Your task to perform on an android device: turn on the 24-hour format for clock Image 0: 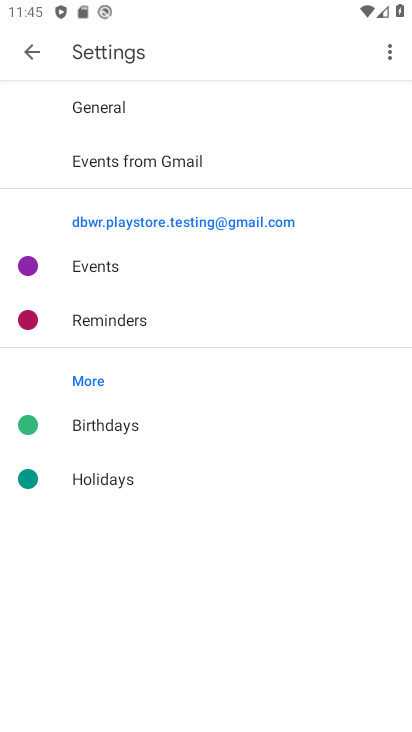
Step 0: press home button
Your task to perform on an android device: turn on the 24-hour format for clock Image 1: 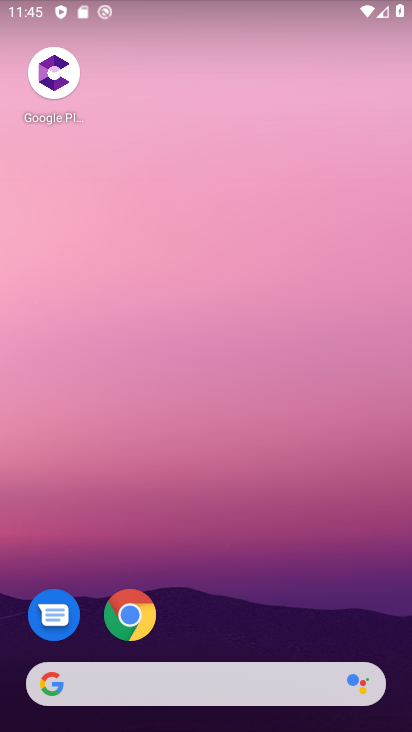
Step 1: drag from (341, 605) to (364, 157)
Your task to perform on an android device: turn on the 24-hour format for clock Image 2: 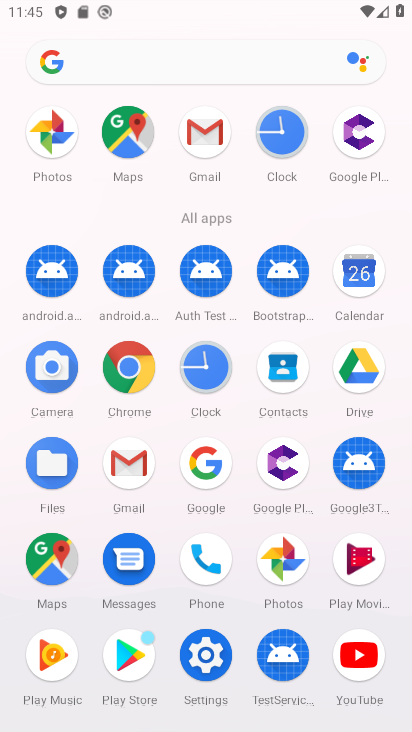
Step 2: click (205, 373)
Your task to perform on an android device: turn on the 24-hour format for clock Image 3: 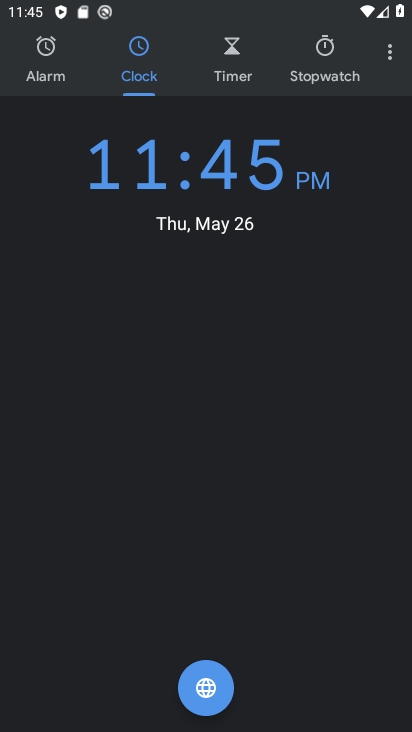
Step 3: click (388, 53)
Your task to perform on an android device: turn on the 24-hour format for clock Image 4: 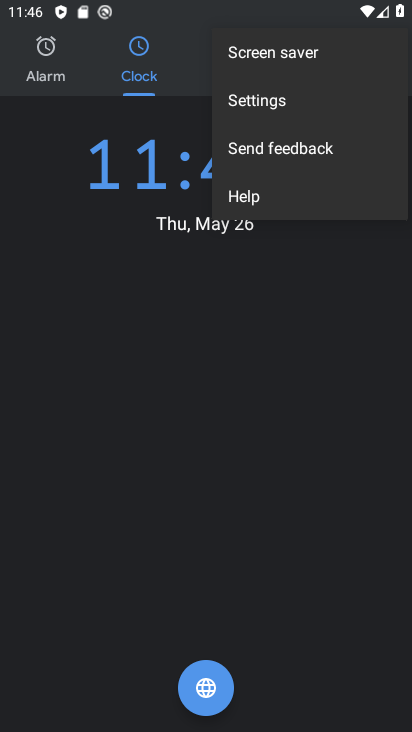
Step 4: click (304, 102)
Your task to perform on an android device: turn on the 24-hour format for clock Image 5: 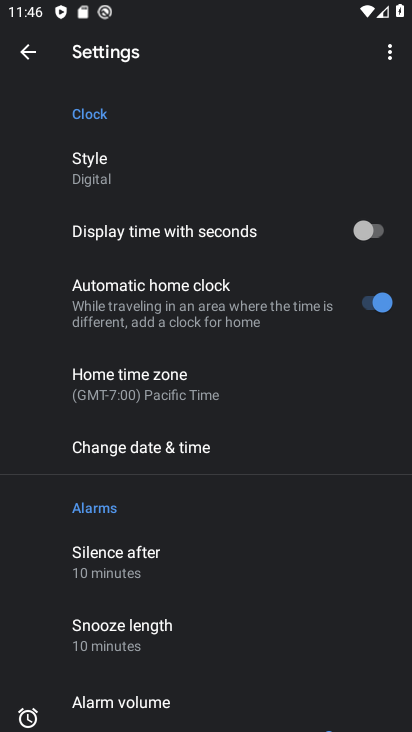
Step 5: drag from (306, 548) to (329, 391)
Your task to perform on an android device: turn on the 24-hour format for clock Image 6: 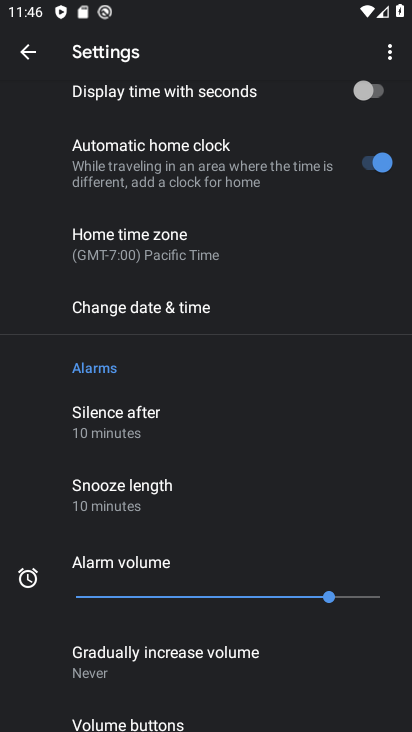
Step 6: drag from (319, 551) to (334, 332)
Your task to perform on an android device: turn on the 24-hour format for clock Image 7: 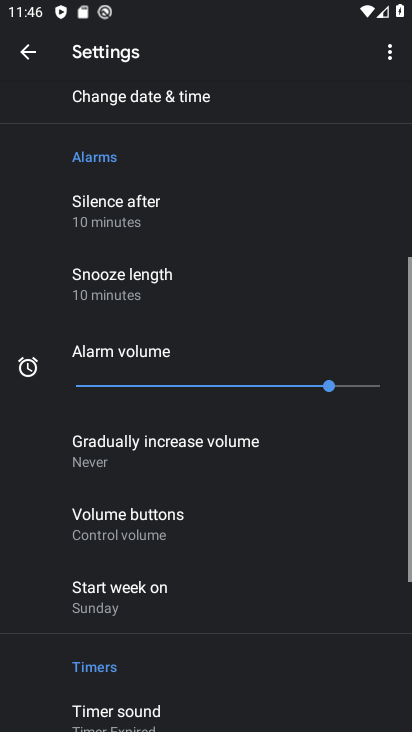
Step 7: drag from (299, 584) to (323, 306)
Your task to perform on an android device: turn on the 24-hour format for clock Image 8: 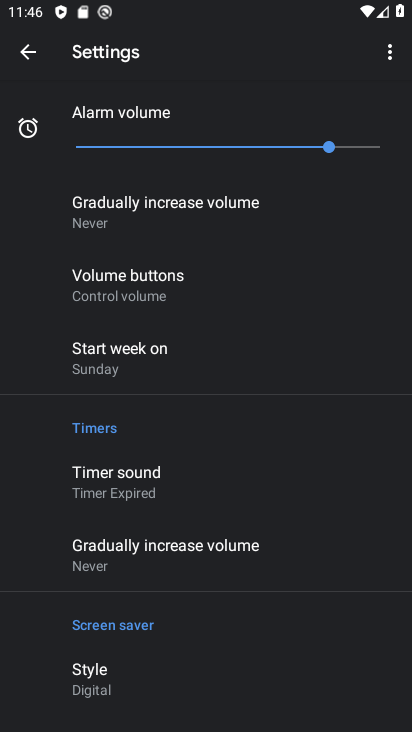
Step 8: drag from (315, 593) to (348, 332)
Your task to perform on an android device: turn on the 24-hour format for clock Image 9: 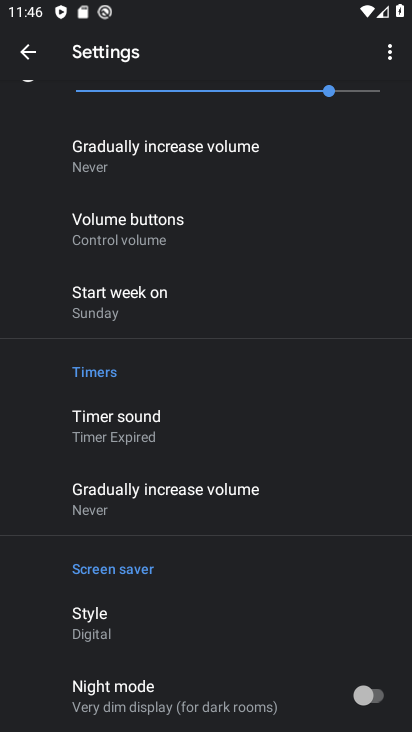
Step 9: drag from (348, 258) to (343, 459)
Your task to perform on an android device: turn on the 24-hour format for clock Image 10: 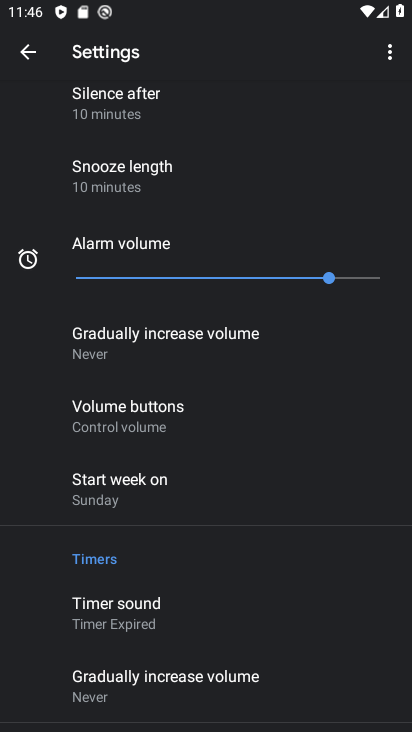
Step 10: drag from (367, 196) to (361, 390)
Your task to perform on an android device: turn on the 24-hour format for clock Image 11: 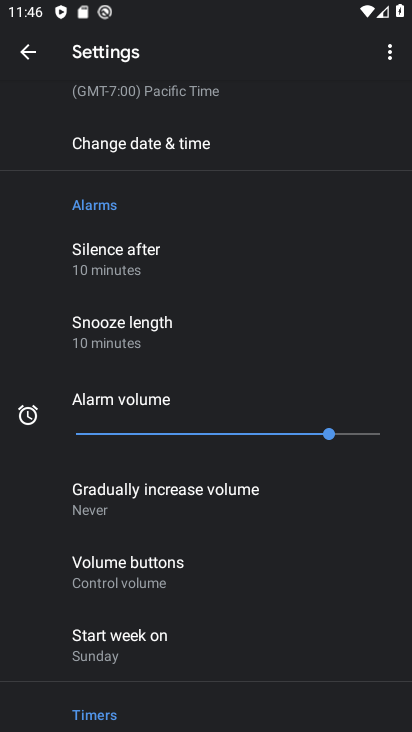
Step 11: drag from (339, 143) to (342, 406)
Your task to perform on an android device: turn on the 24-hour format for clock Image 12: 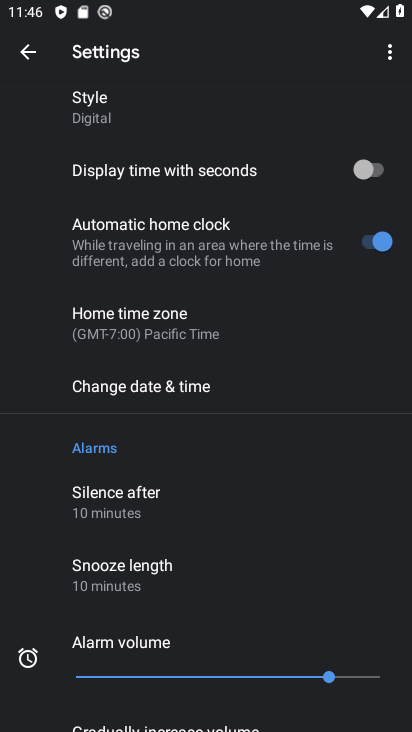
Step 12: click (218, 398)
Your task to perform on an android device: turn on the 24-hour format for clock Image 13: 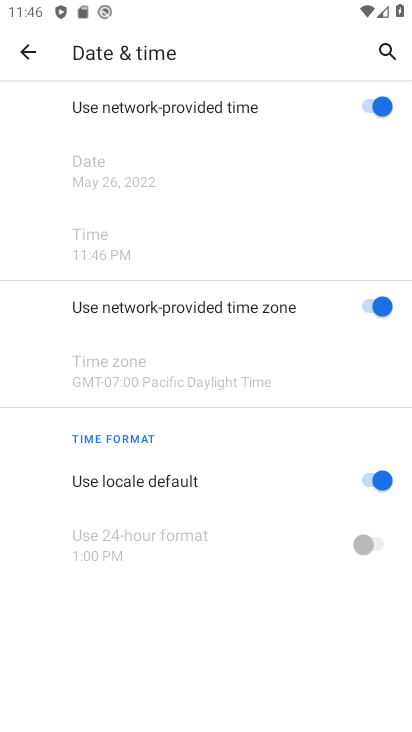
Step 13: click (375, 473)
Your task to perform on an android device: turn on the 24-hour format for clock Image 14: 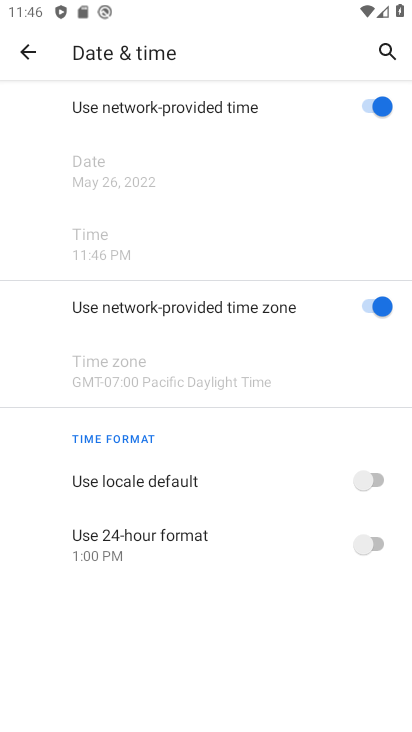
Step 14: click (366, 553)
Your task to perform on an android device: turn on the 24-hour format for clock Image 15: 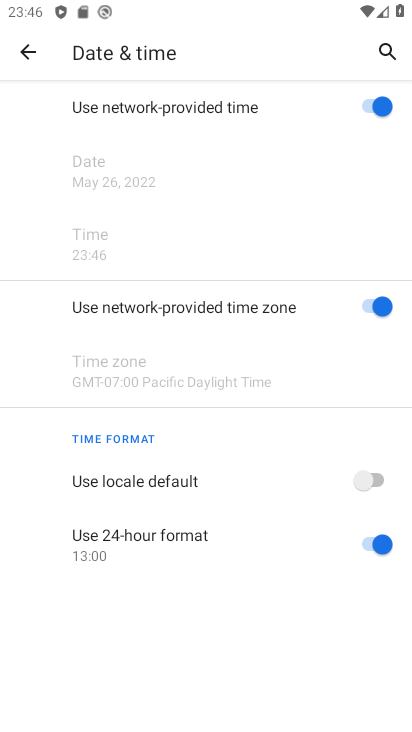
Step 15: task complete